Your task to perform on an android device: toggle notification dots Image 0: 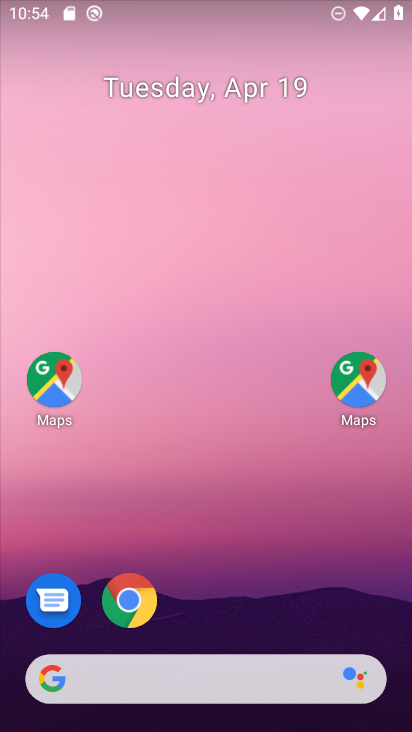
Step 0: drag from (243, 583) to (182, 28)
Your task to perform on an android device: toggle notification dots Image 1: 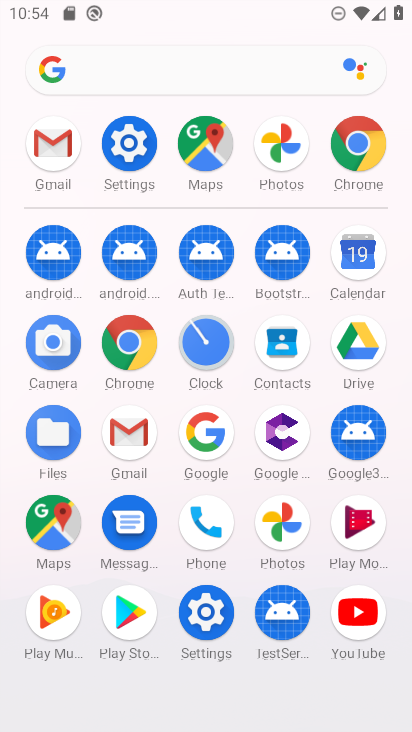
Step 1: click (206, 624)
Your task to perform on an android device: toggle notification dots Image 2: 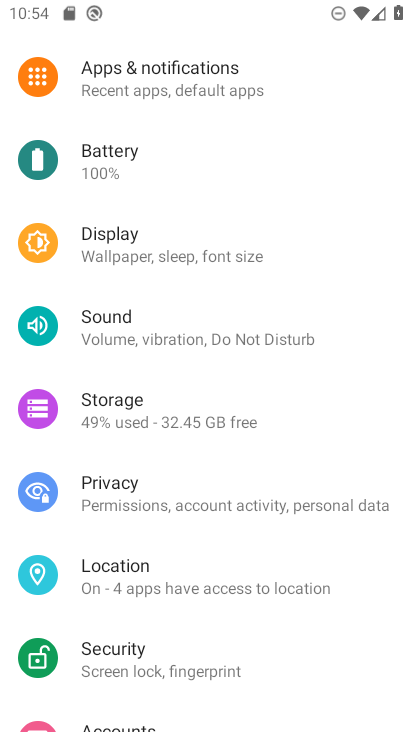
Step 2: click (230, 84)
Your task to perform on an android device: toggle notification dots Image 3: 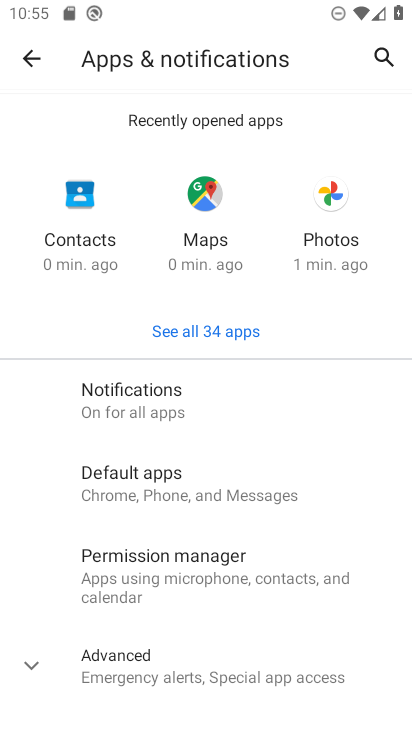
Step 3: click (194, 406)
Your task to perform on an android device: toggle notification dots Image 4: 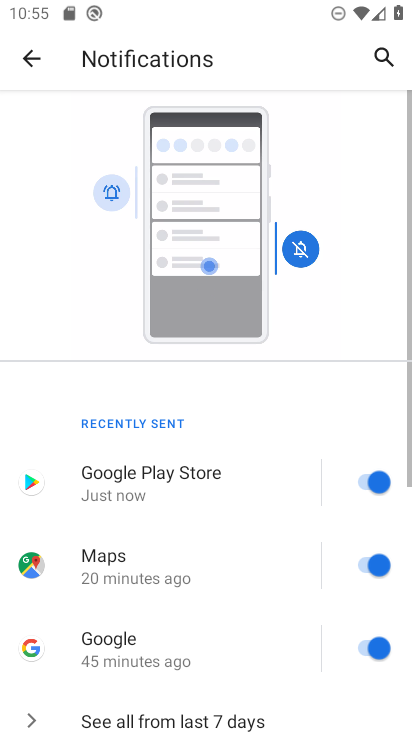
Step 4: drag from (258, 595) to (233, 290)
Your task to perform on an android device: toggle notification dots Image 5: 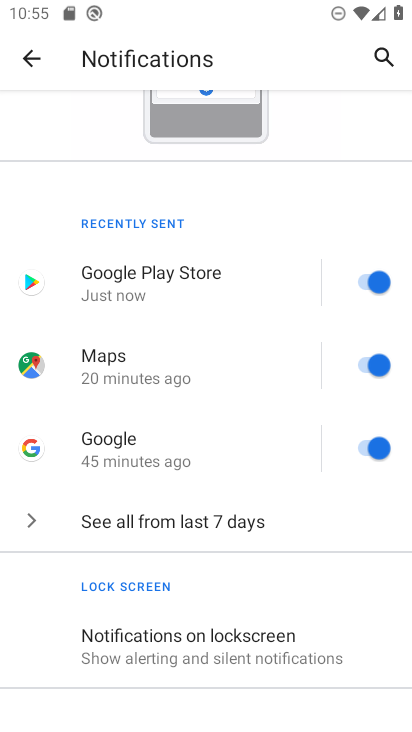
Step 5: drag from (296, 625) to (228, 215)
Your task to perform on an android device: toggle notification dots Image 6: 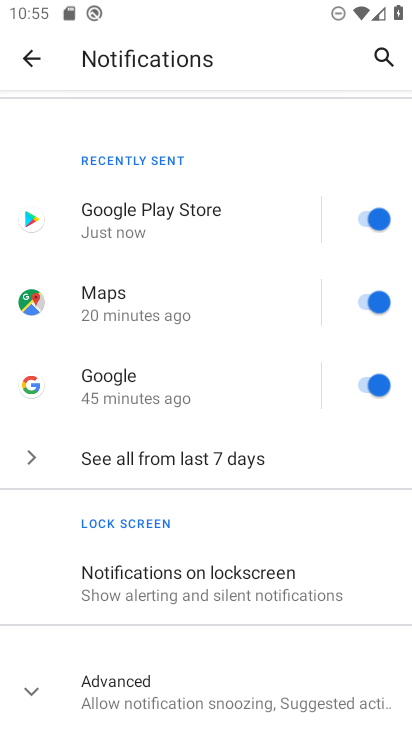
Step 6: click (235, 698)
Your task to perform on an android device: toggle notification dots Image 7: 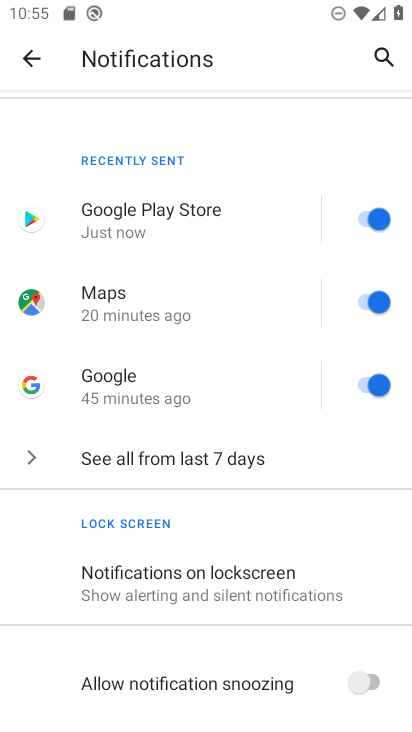
Step 7: drag from (235, 698) to (254, 225)
Your task to perform on an android device: toggle notification dots Image 8: 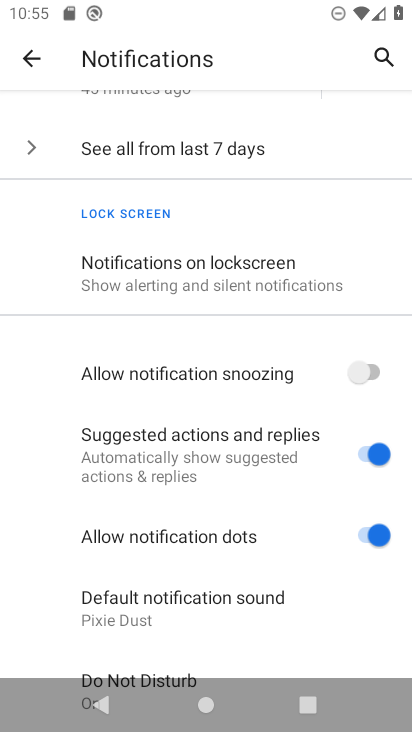
Step 8: click (366, 536)
Your task to perform on an android device: toggle notification dots Image 9: 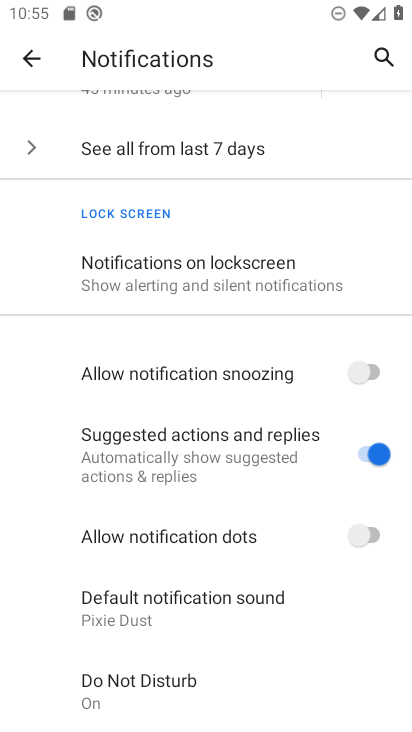
Step 9: task complete